Your task to perform on an android device: toggle improve location accuracy Image 0: 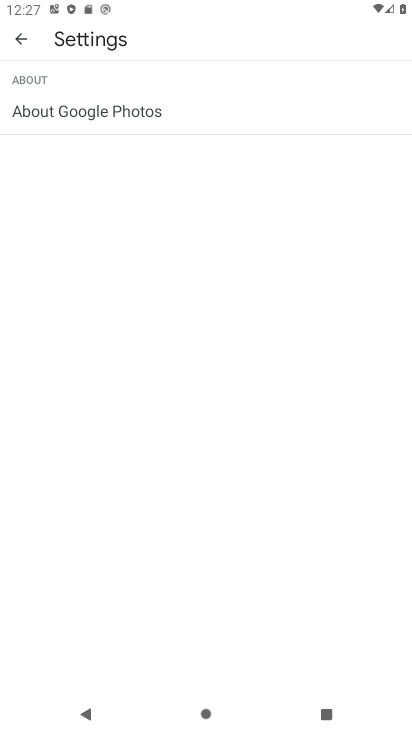
Step 0: press home button
Your task to perform on an android device: toggle improve location accuracy Image 1: 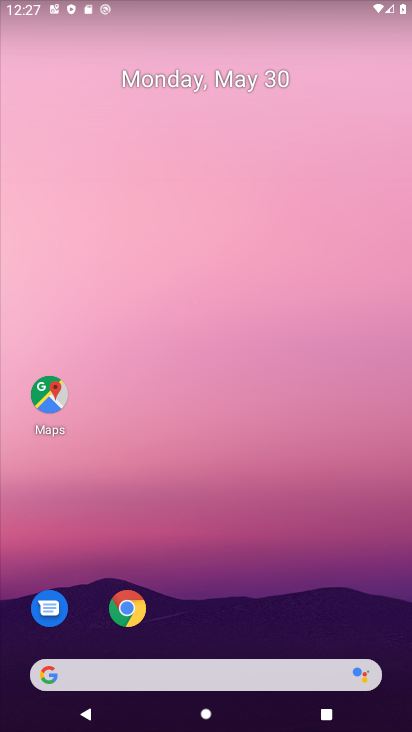
Step 1: drag from (263, 604) to (270, 84)
Your task to perform on an android device: toggle improve location accuracy Image 2: 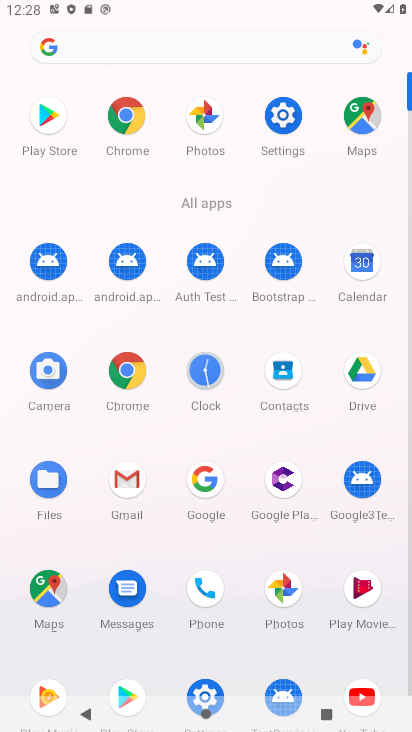
Step 2: click (279, 115)
Your task to perform on an android device: toggle improve location accuracy Image 3: 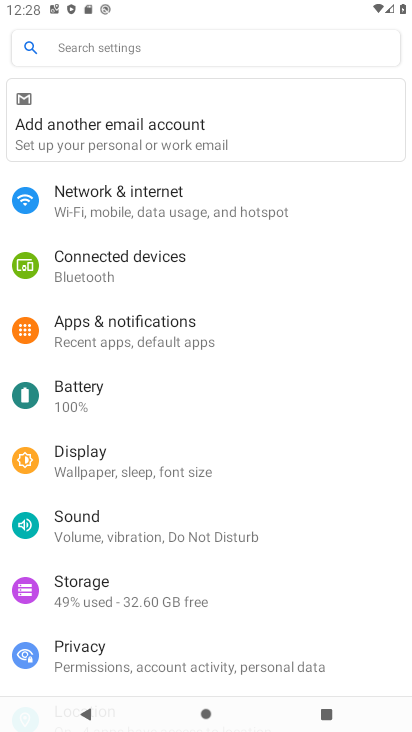
Step 3: drag from (118, 586) to (189, 172)
Your task to perform on an android device: toggle improve location accuracy Image 4: 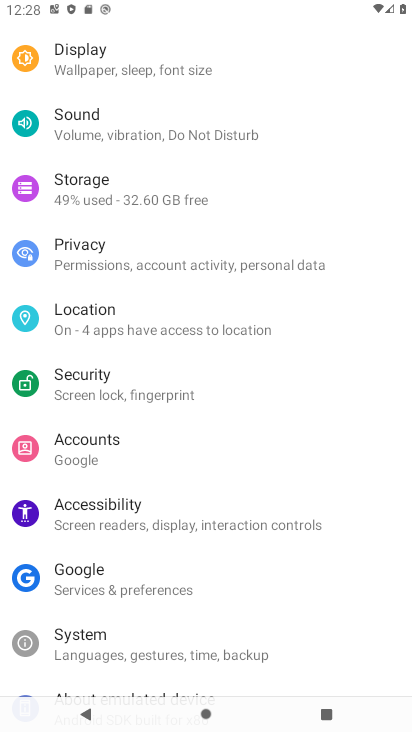
Step 4: click (136, 330)
Your task to perform on an android device: toggle improve location accuracy Image 5: 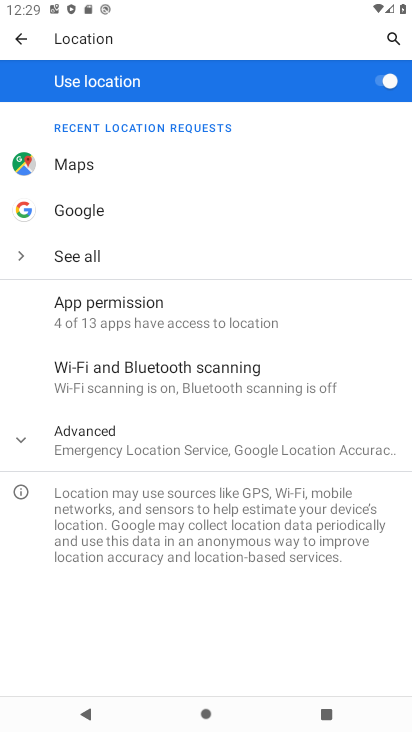
Step 5: click (239, 453)
Your task to perform on an android device: toggle improve location accuracy Image 6: 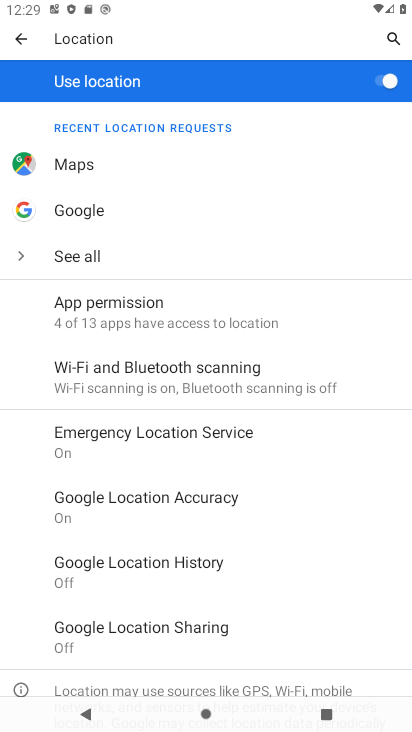
Step 6: click (217, 501)
Your task to perform on an android device: toggle improve location accuracy Image 7: 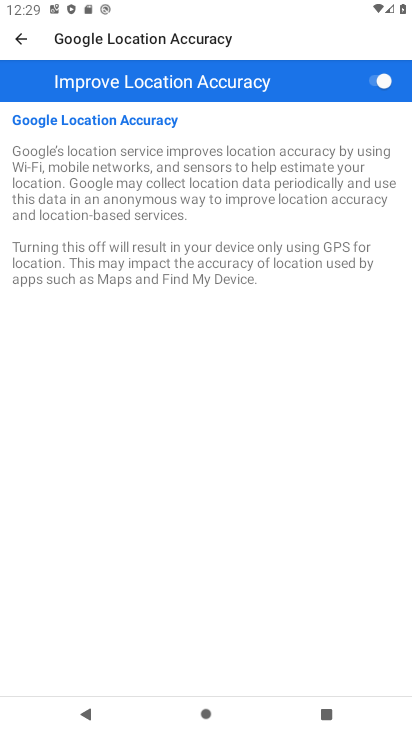
Step 7: click (380, 76)
Your task to perform on an android device: toggle improve location accuracy Image 8: 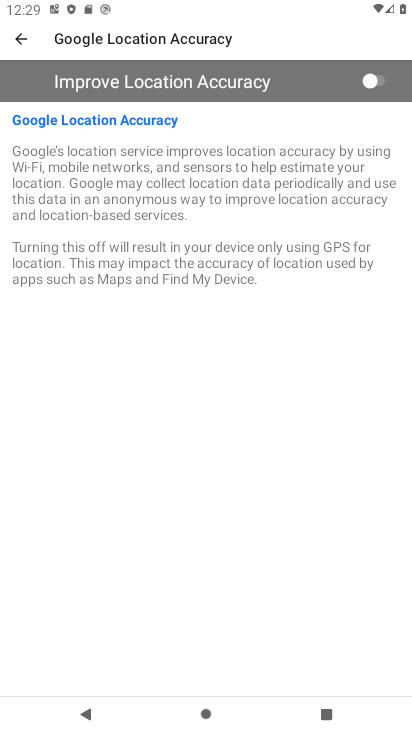
Step 8: task complete